Your task to perform on an android device: open app "LiveIn - Share Your Moment" Image 0: 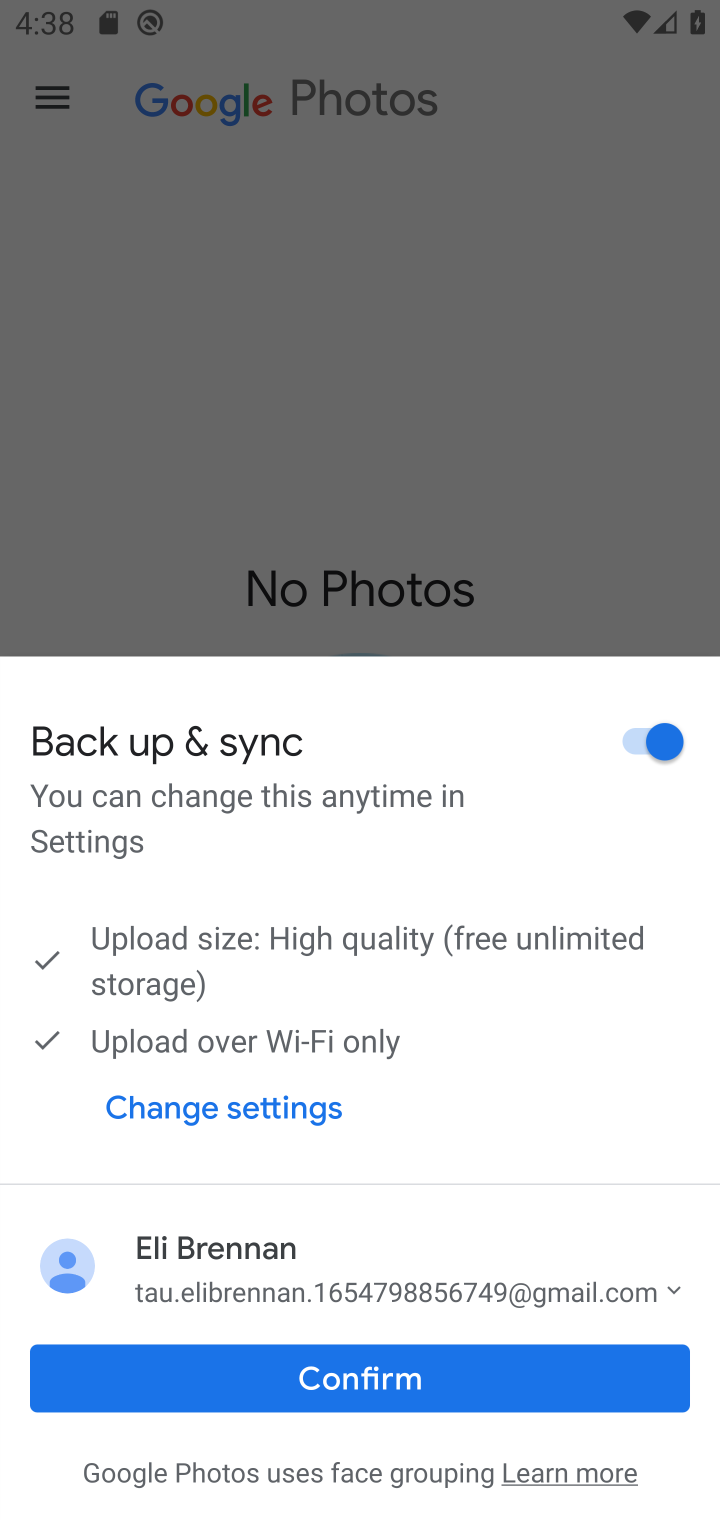
Step 0: press home button
Your task to perform on an android device: open app "LiveIn - Share Your Moment" Image 1: 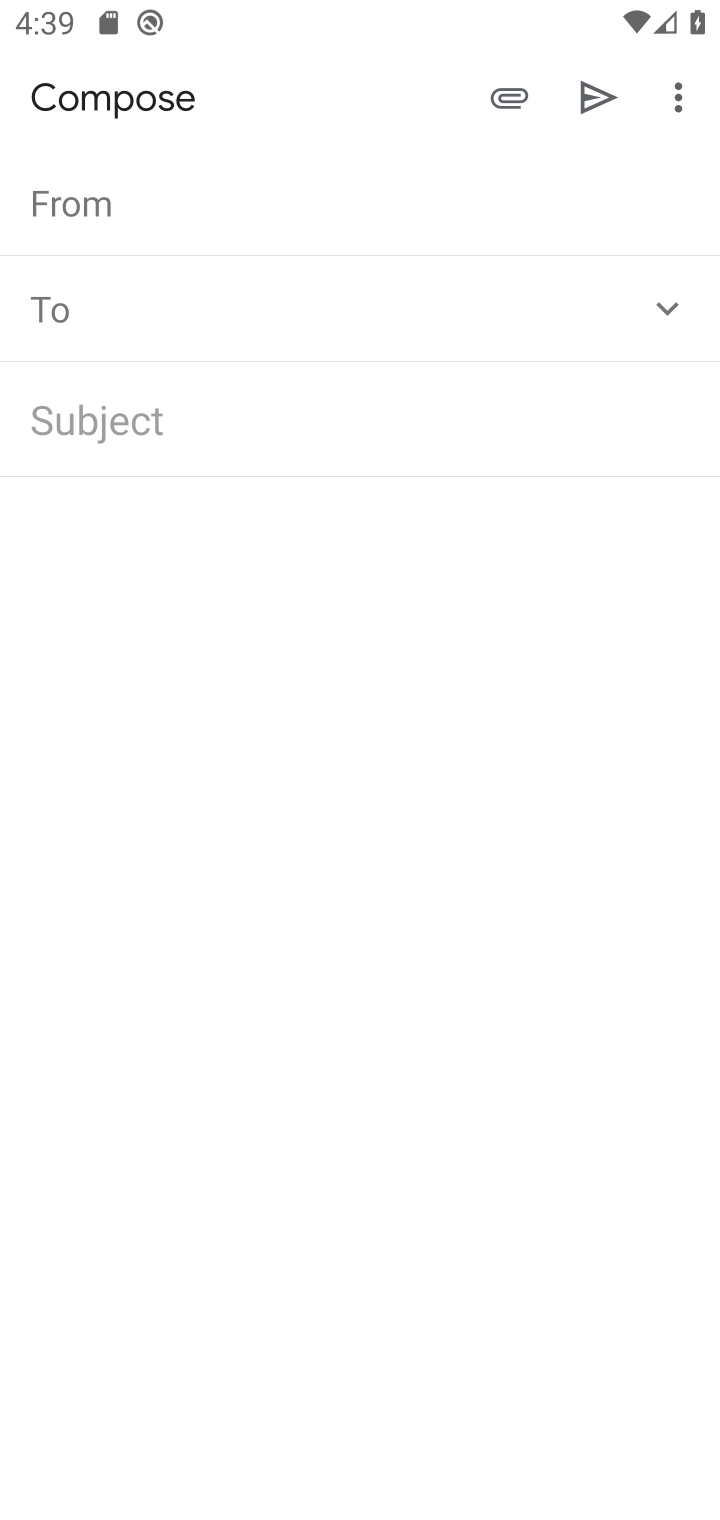
Step 1: press home button
Your task to perform on an android device: open app "LiveIn - Share Your Moment" Image 2: 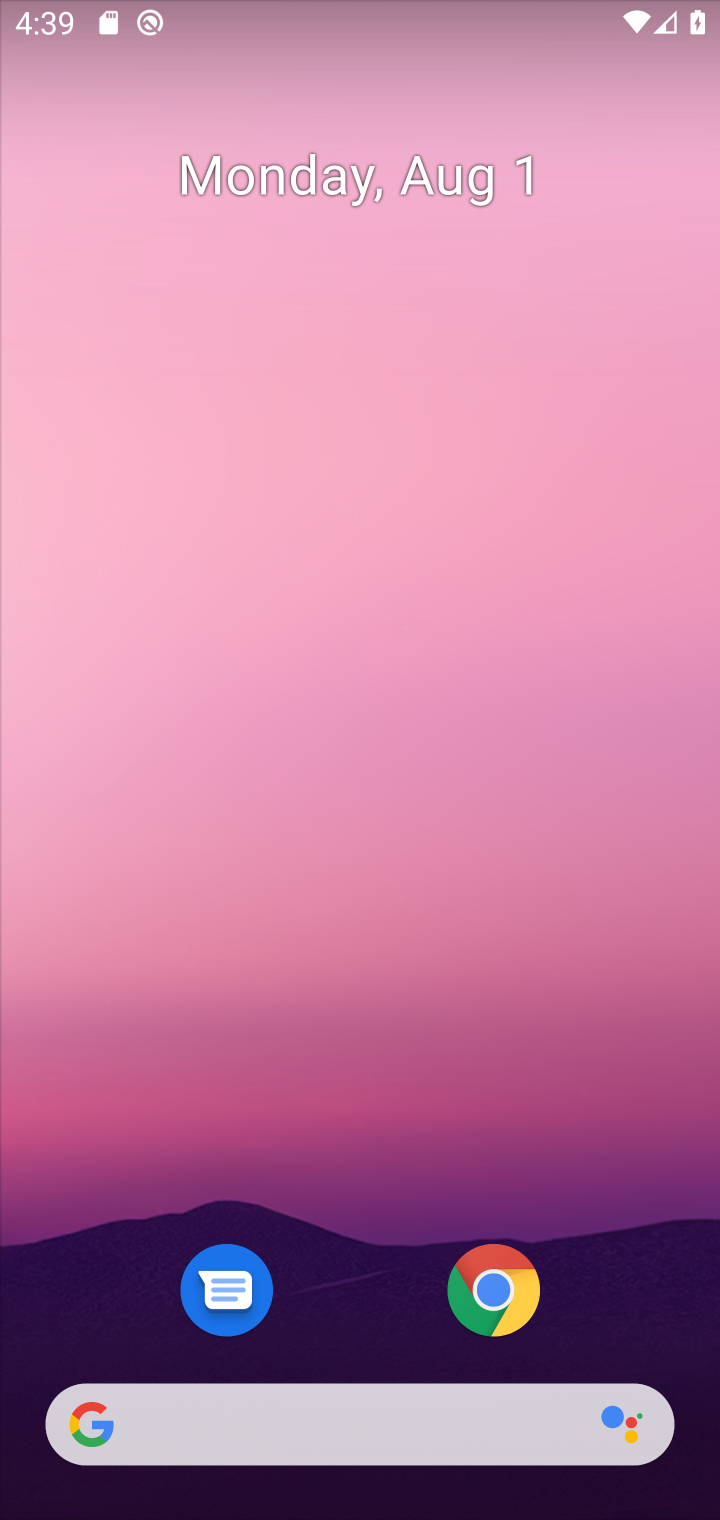
Step 2: drag from (393, 1410) to (407, 67)
Your task to perform on an android device: open app "LiveIn - Share Your Moment" Image 3: 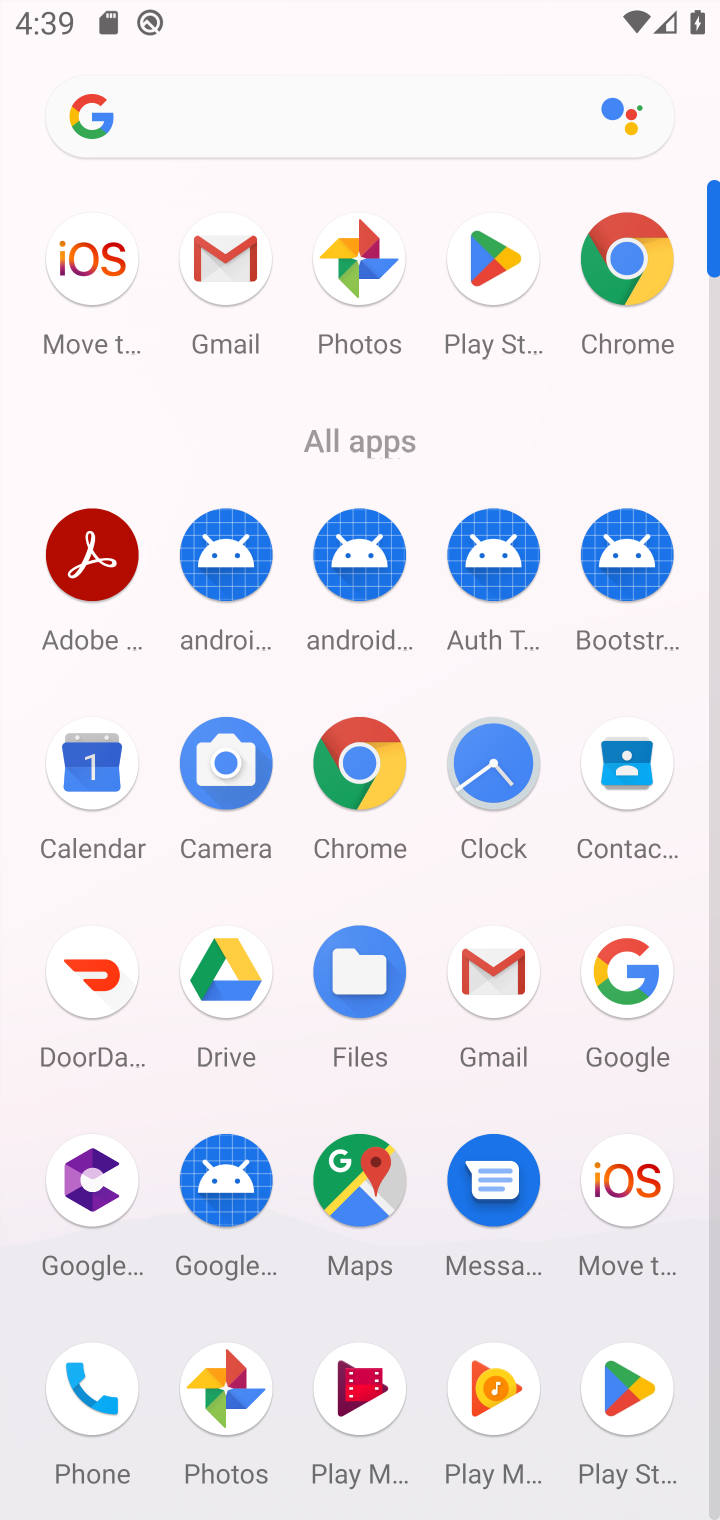
Step 3: click (503, 262)
Your task to perform on an android device: open app "LiveIn - Share Your Moment" Image 4: 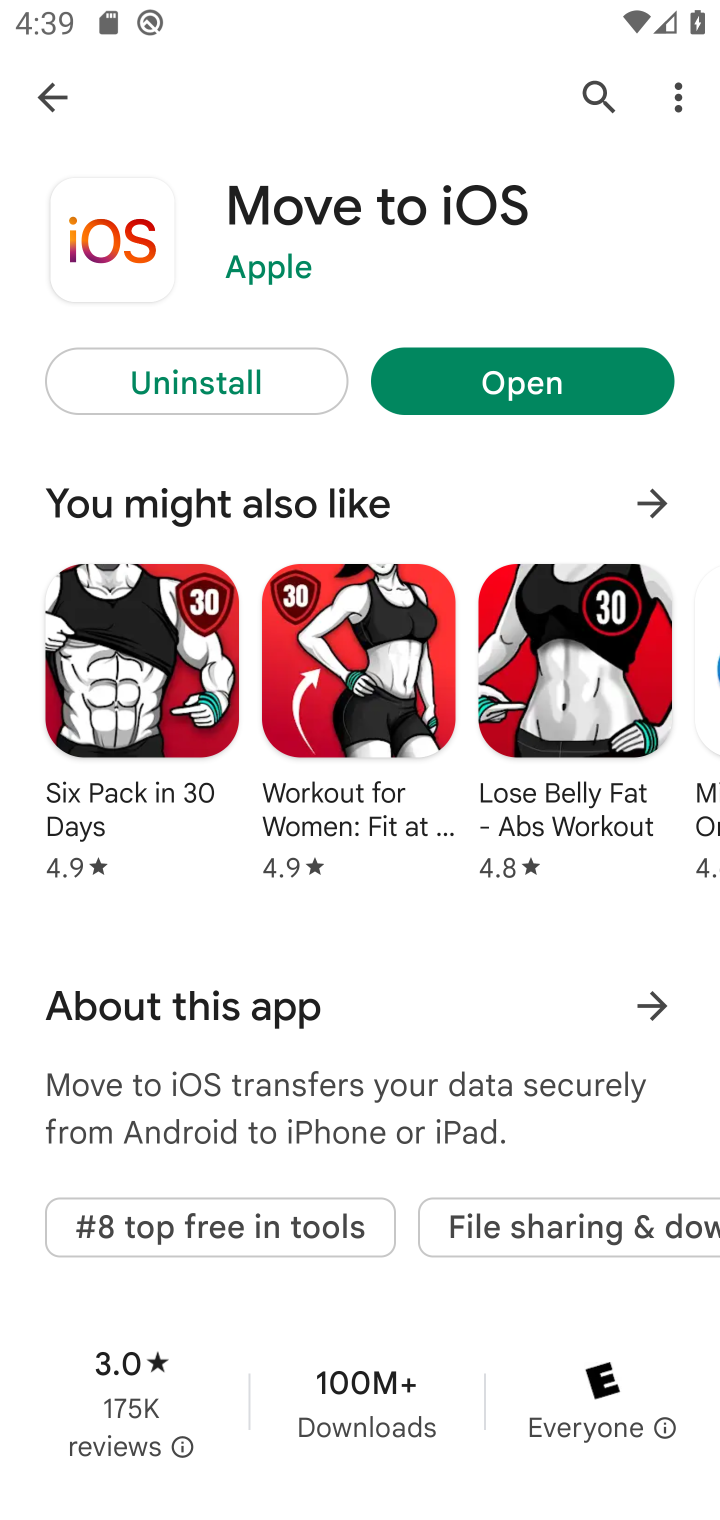
Step 4: click (623, 92)
Your task to perform on an android device: open app "LiveIn - Share Your Moment" Image 5: 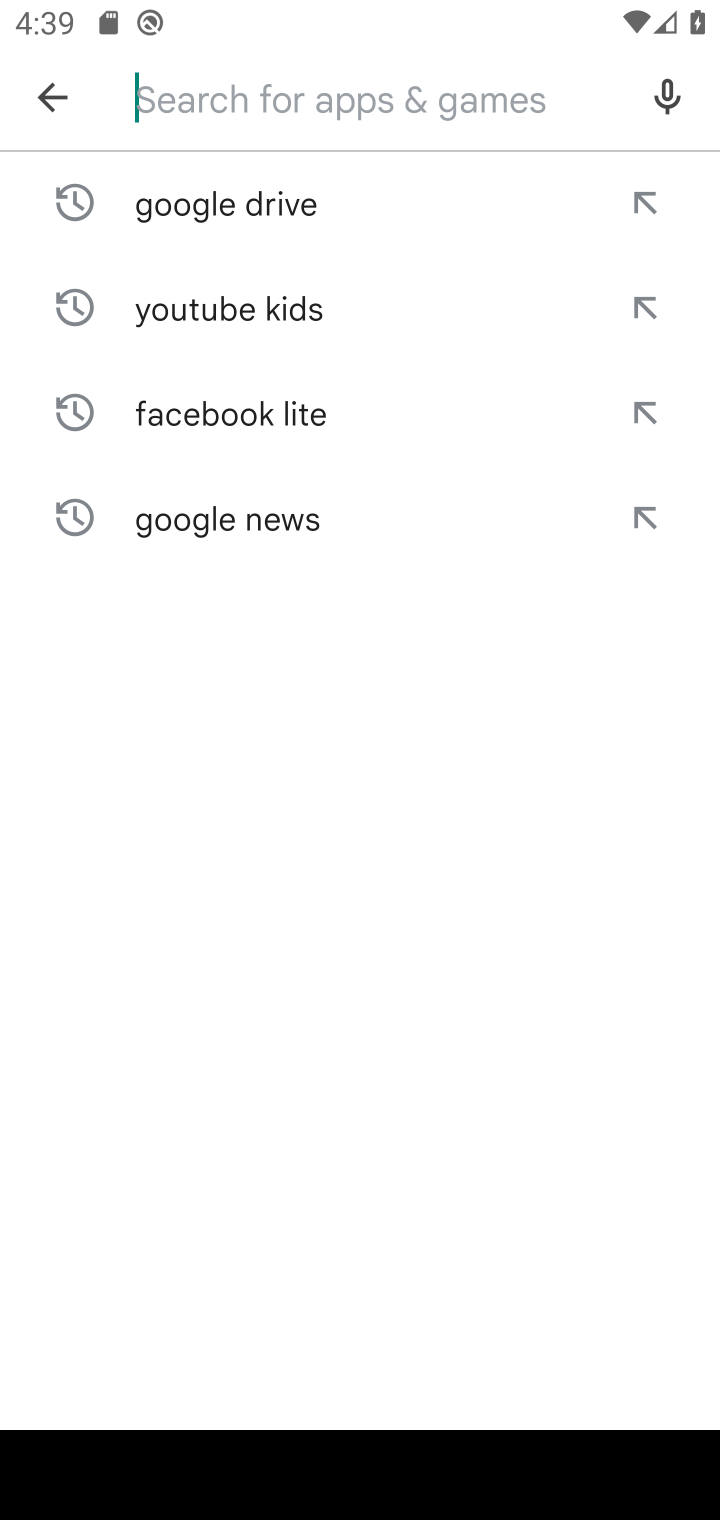
Step 5: type "live in - share your moment"
Your task to perform on an android device: open app "LiveIn - Share Your Moment" Image 6: 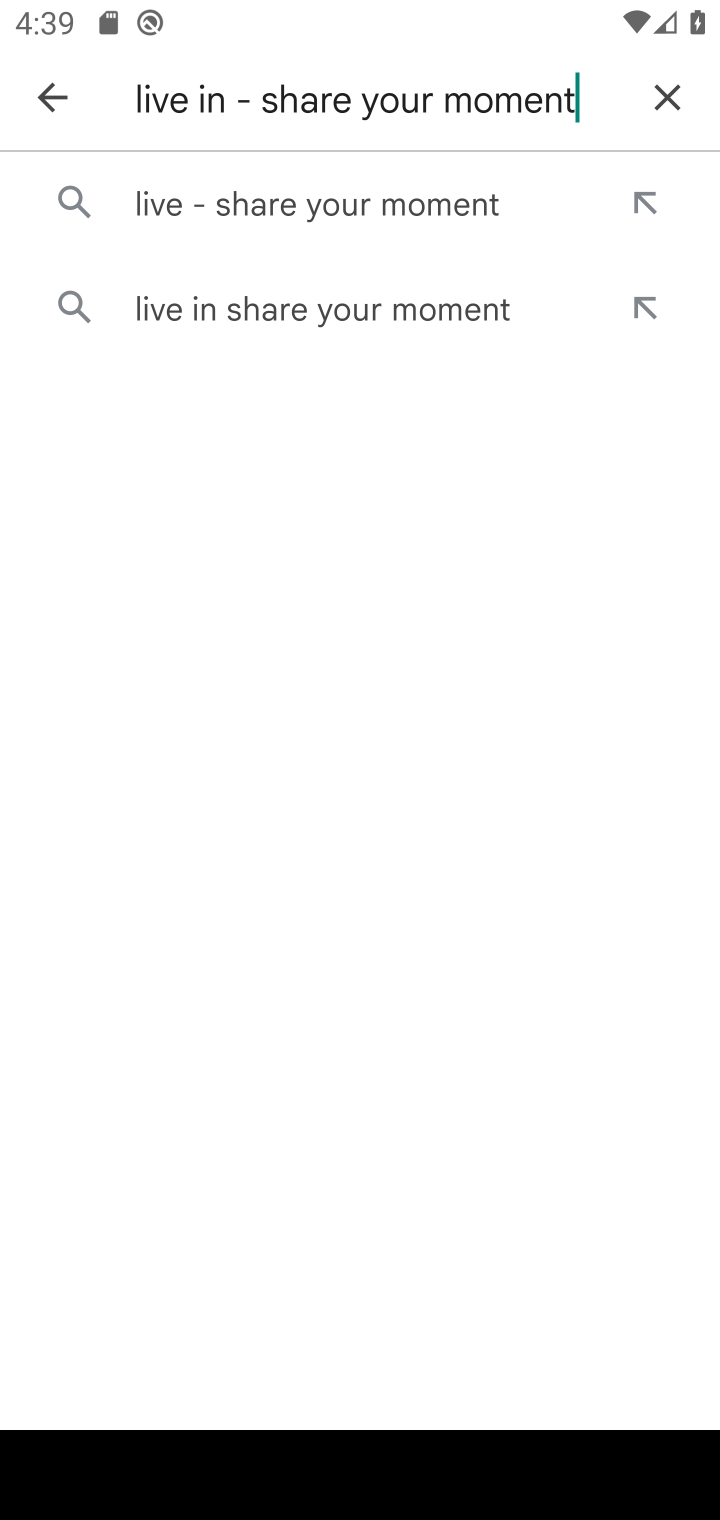
Step 6: click (465, 193)
Your task to perform on an android device: open app "LiveIn - Share Your Moment" Image 7: 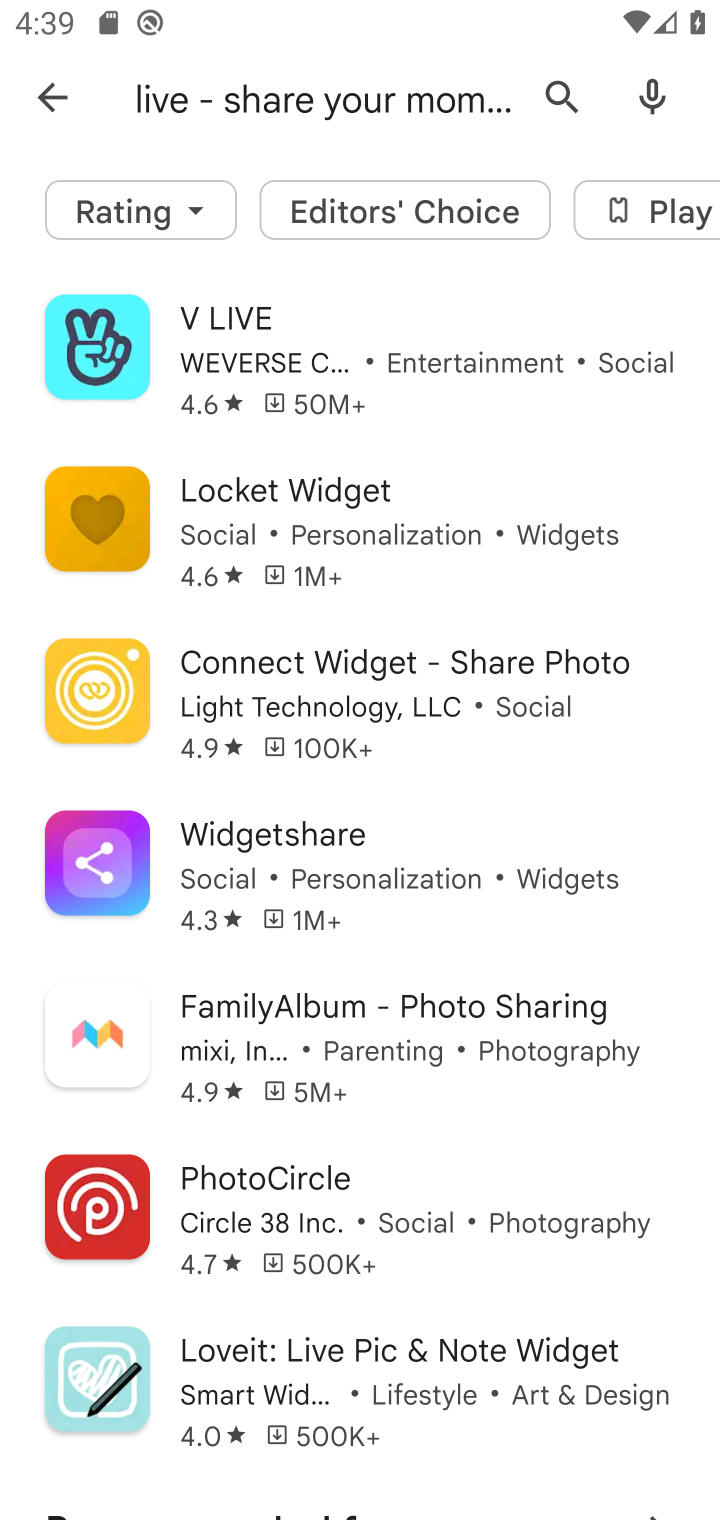
Step 7: task complete